Your task to perform on an android device: turn on javascript in the chrome app Image 0: 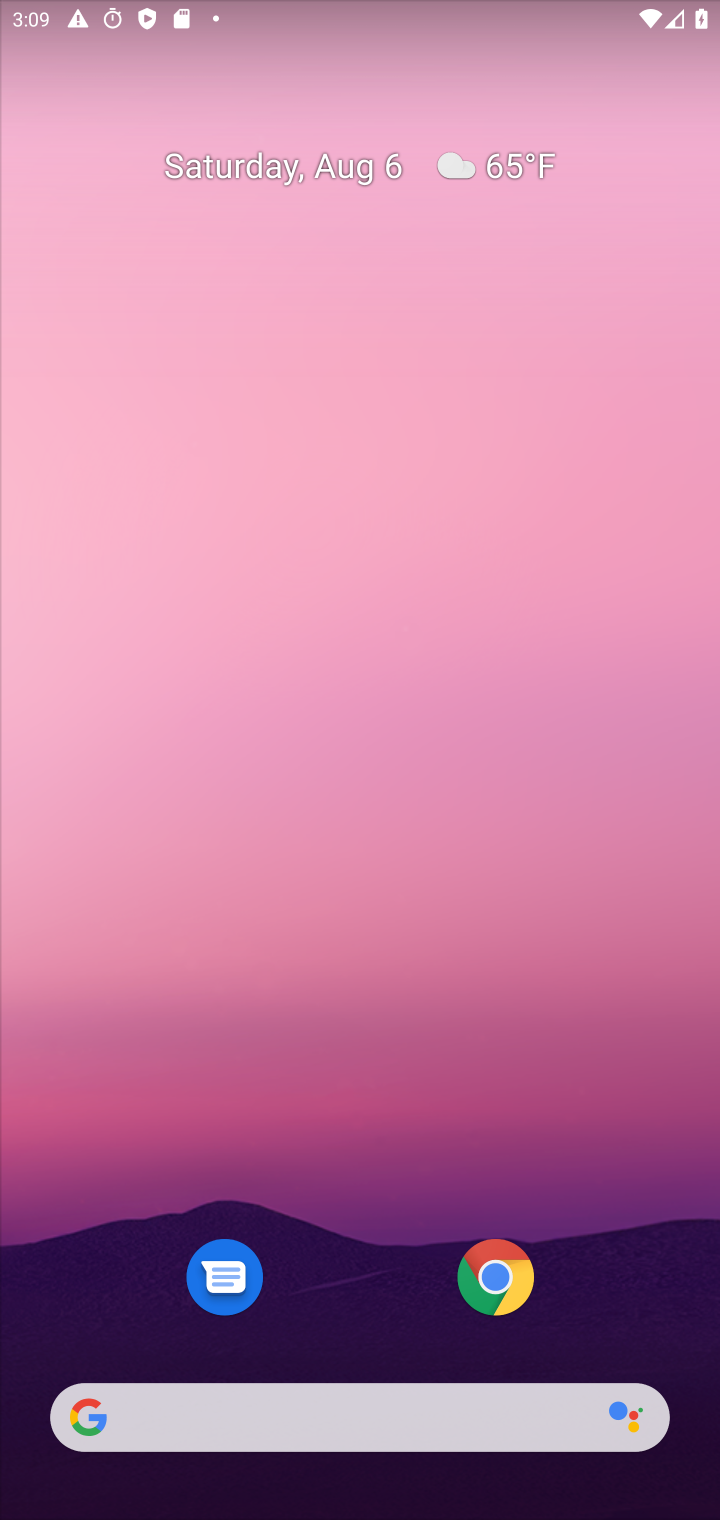
Step 0: drag from (437, 1416) to (430, 38)
Your task to perform on an android device: turn on javascript in the chrome app Image 1: 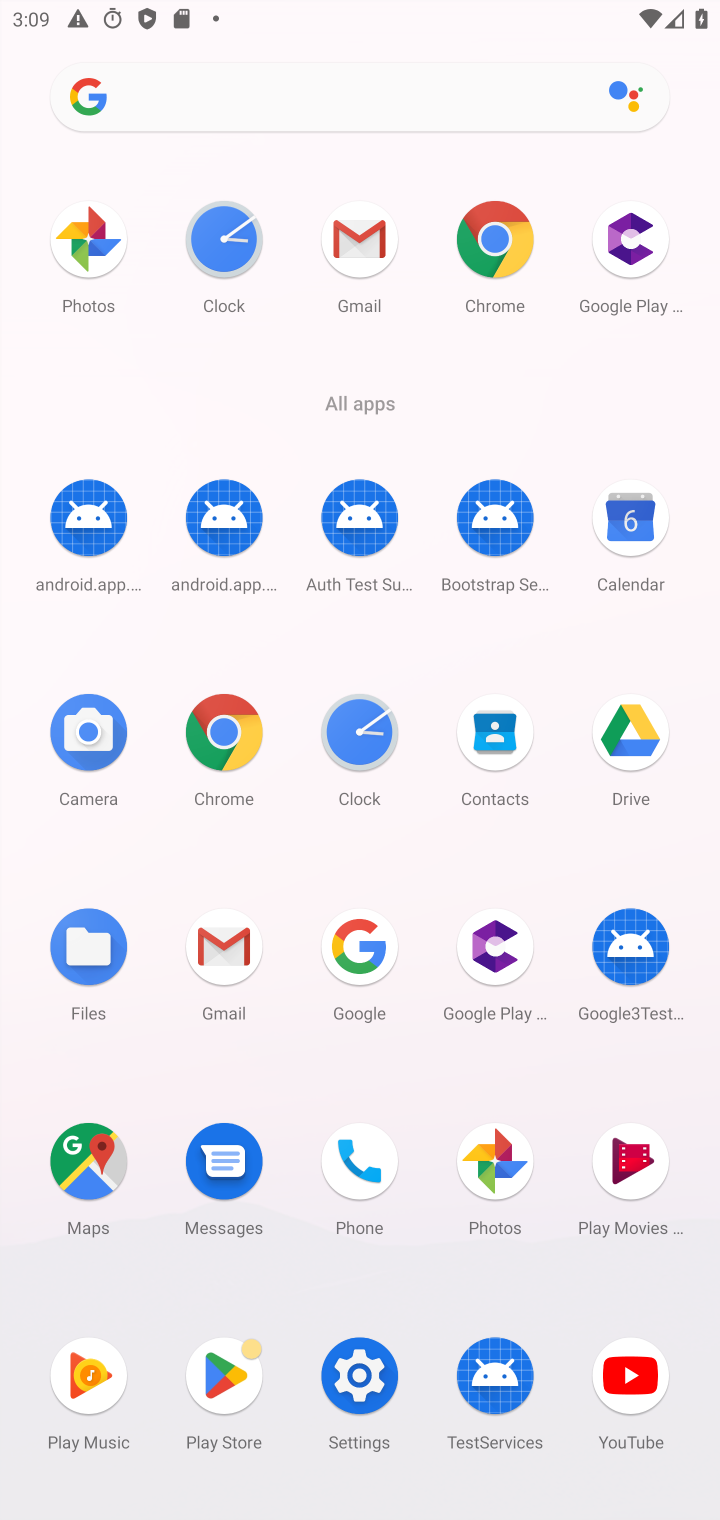
Step 1: click (228, 726)
Your task to perform on an android device: turn on javascript in the chrome app Image 2: 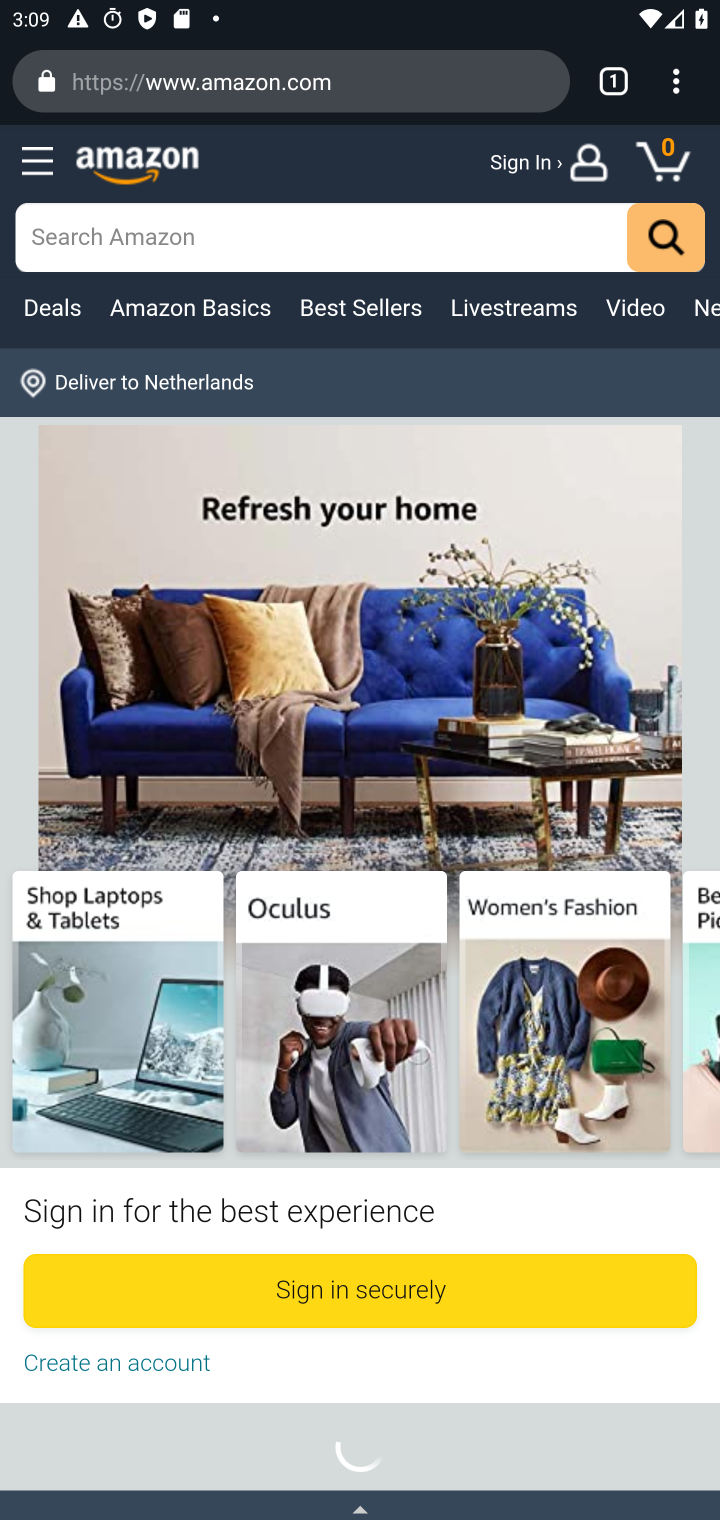
Step 2: drag from (676, 74) to (410, 980)
Your task to perform on an android device: turn on javascript in the chrome app Image 3: 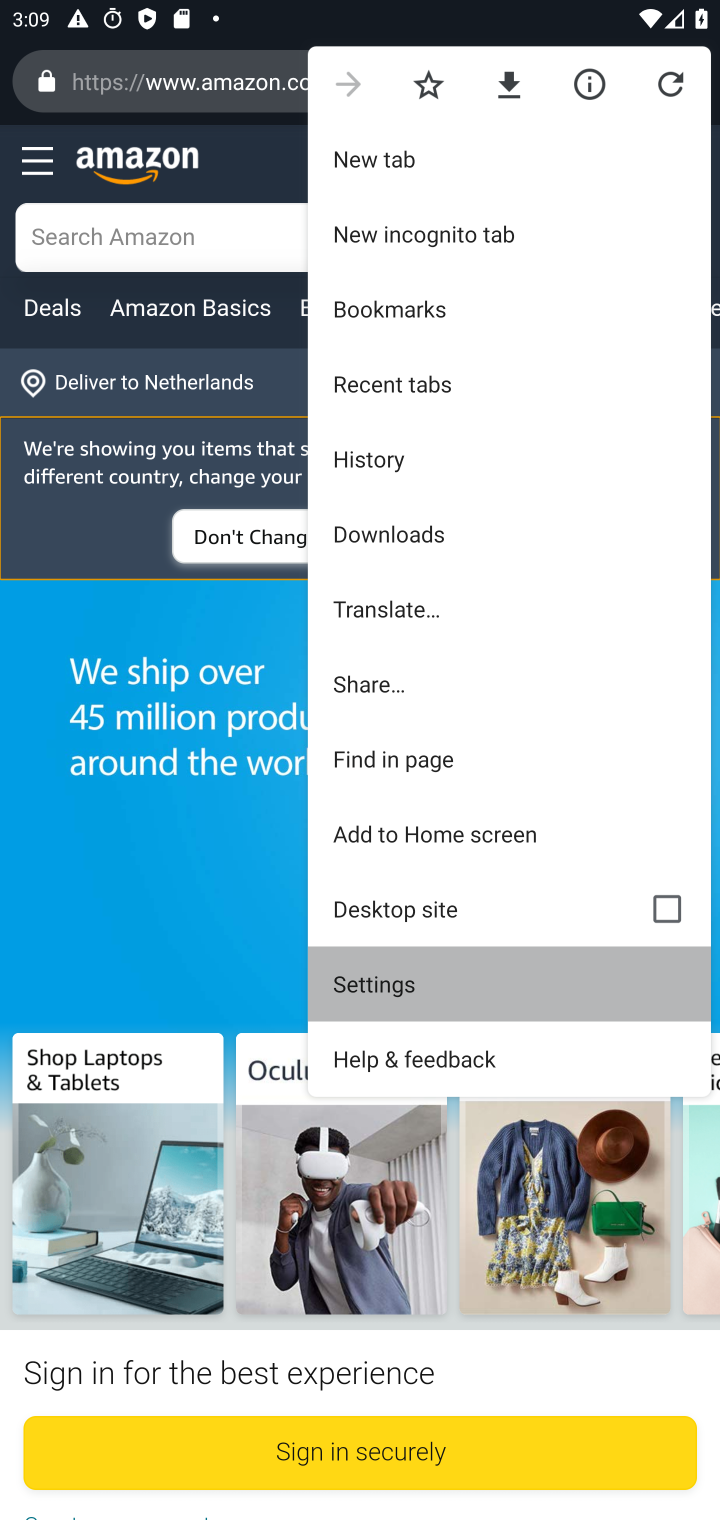
Step 3: click (410, 980)
Your task to perform on an android device: turn on javascript in the chrome app Image 4: 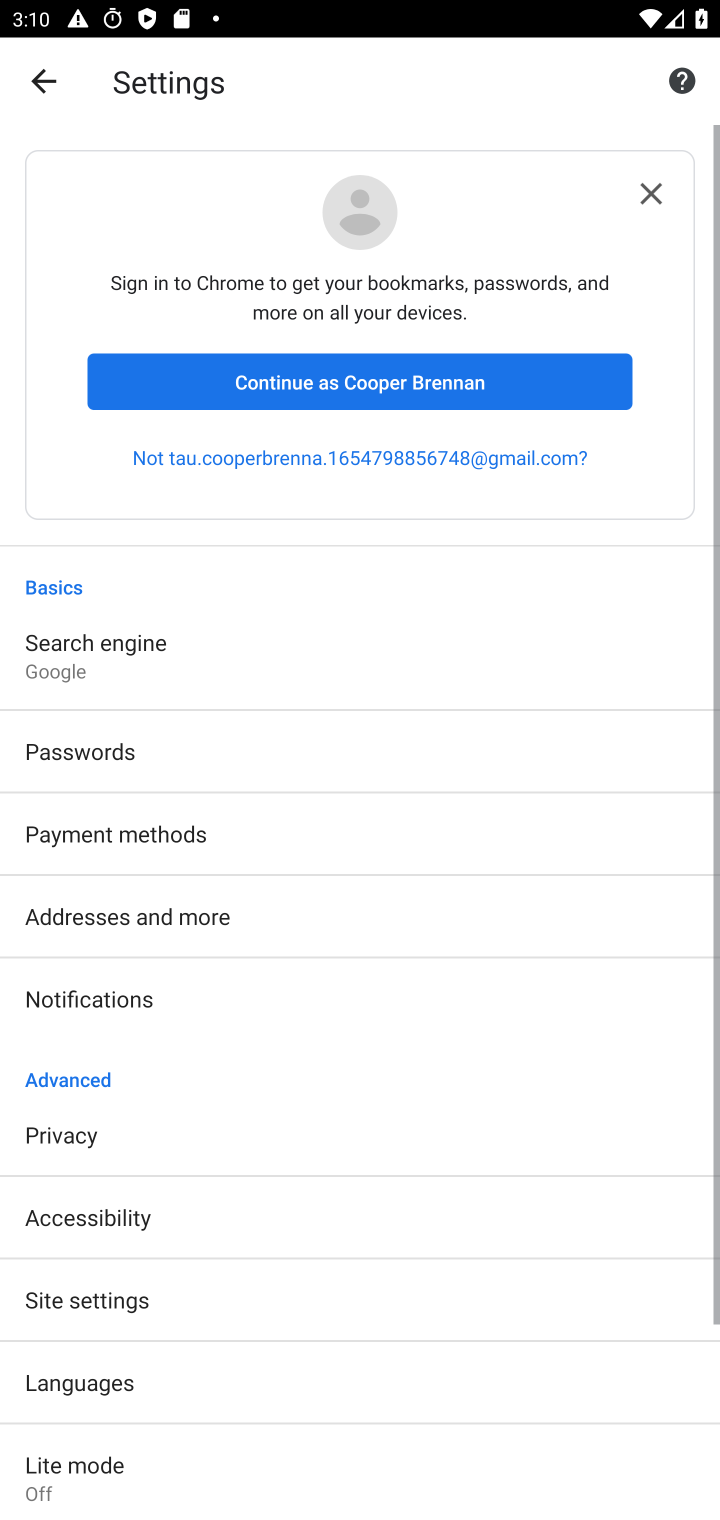
Step 4: click (238, 1313)
Your task to perform on an android device: turn on javascript in the chrome app Image 5: 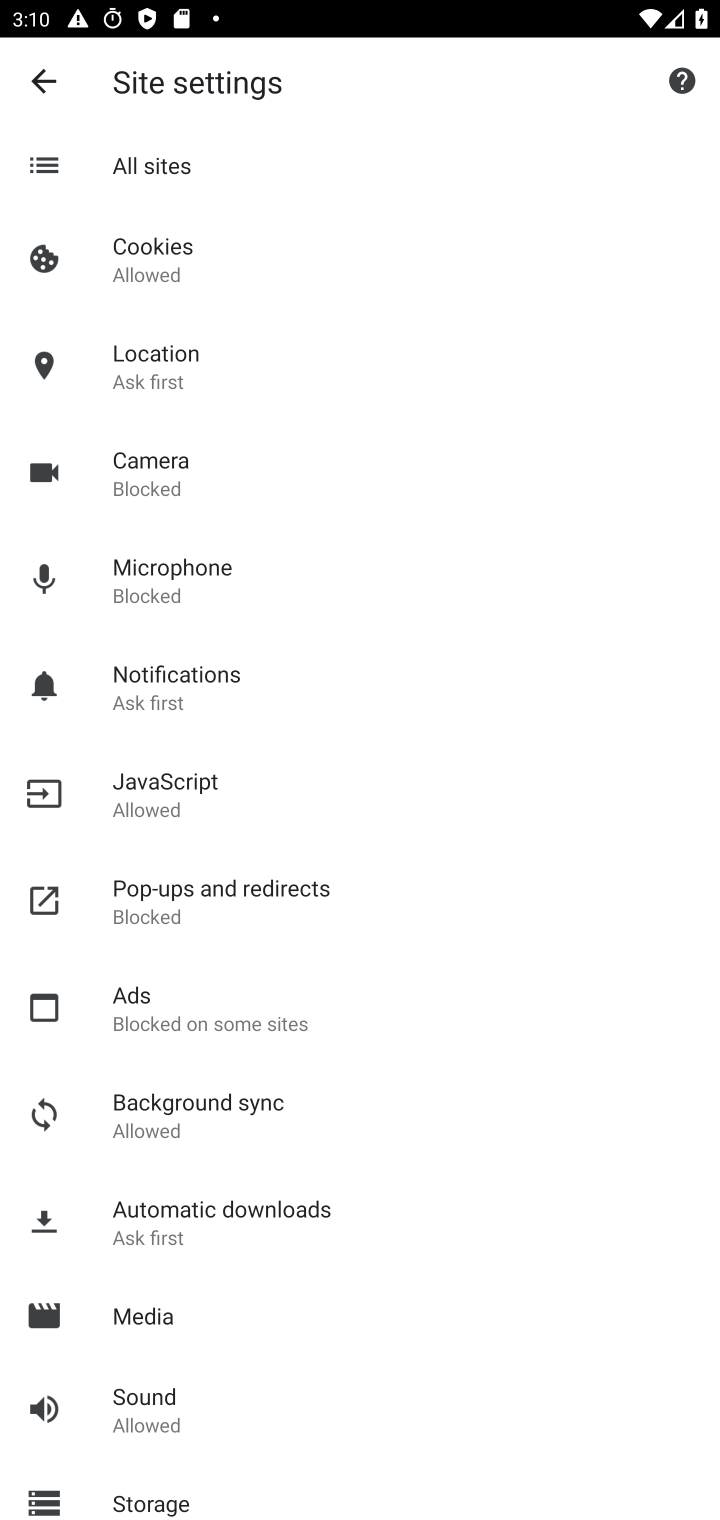
Step 5: click (217, 796)
Your task to perform on an android device: turn on javascript in the chrome app Image 6: 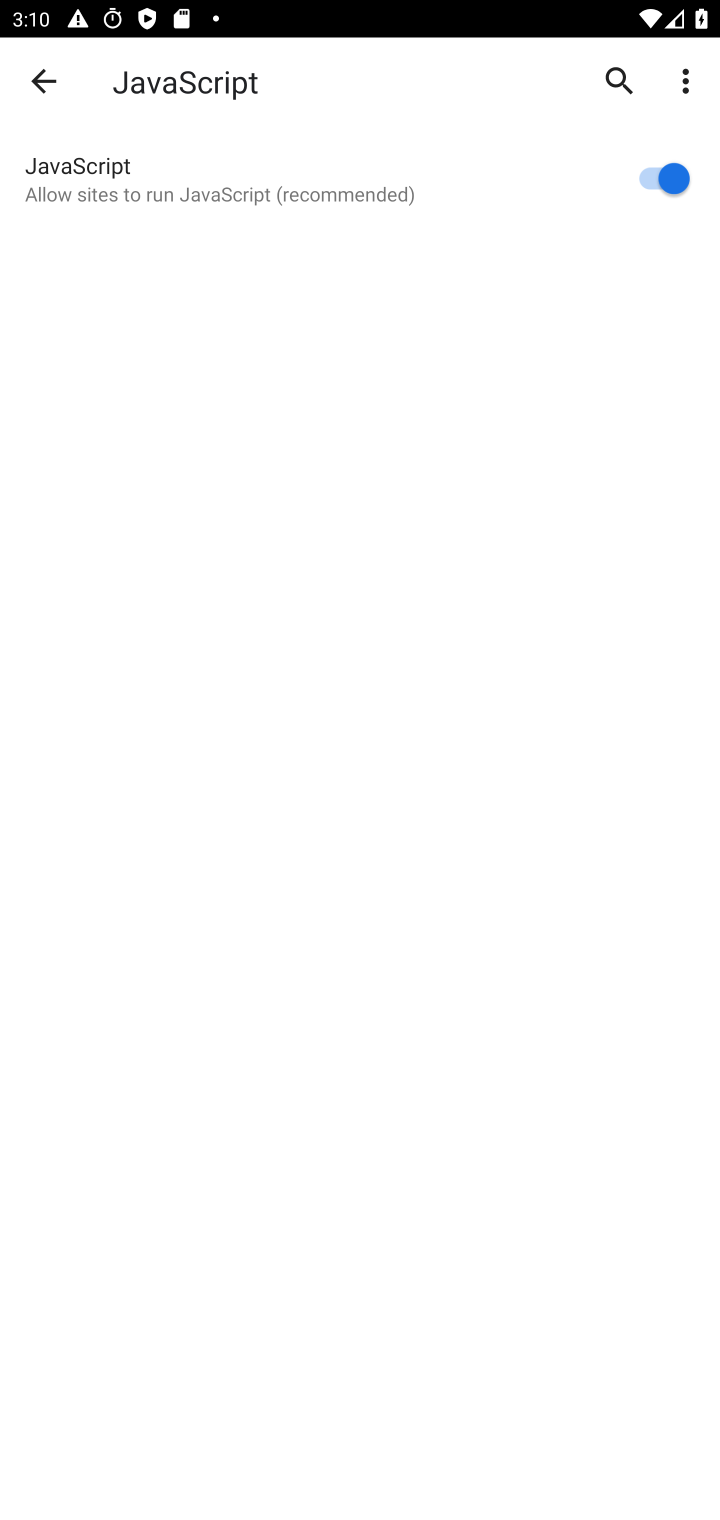
Step 6: task complete